Your task to perform on an android device: Search for "dell xps" on bestbuy, select the first entry, and add it to the cart. Image 0: 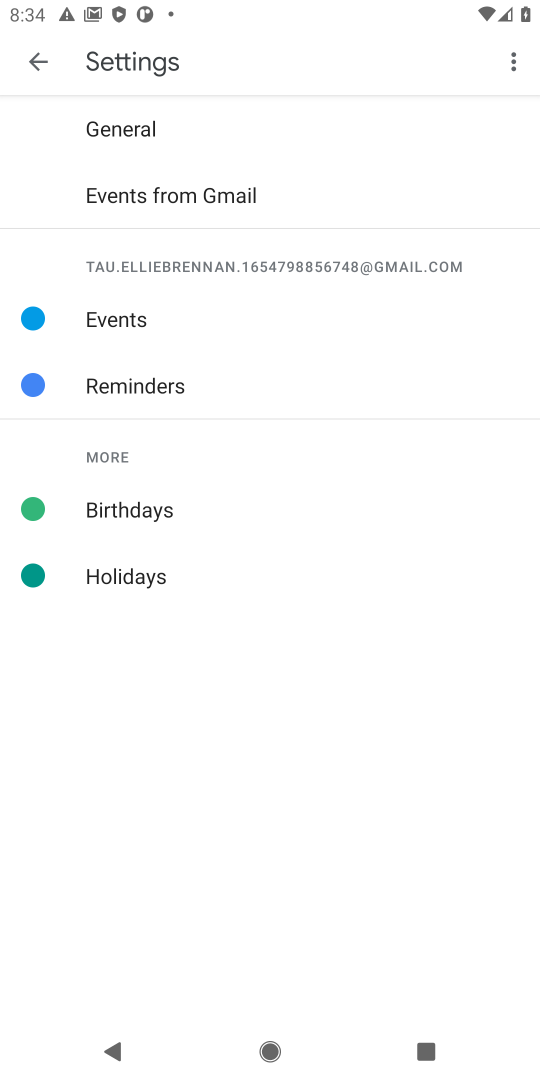
Step 0: press home button
Your task to perform on an android device: Search for "dell xps" on bestbuy, select the first entry, and add it to the cart. Image 1: 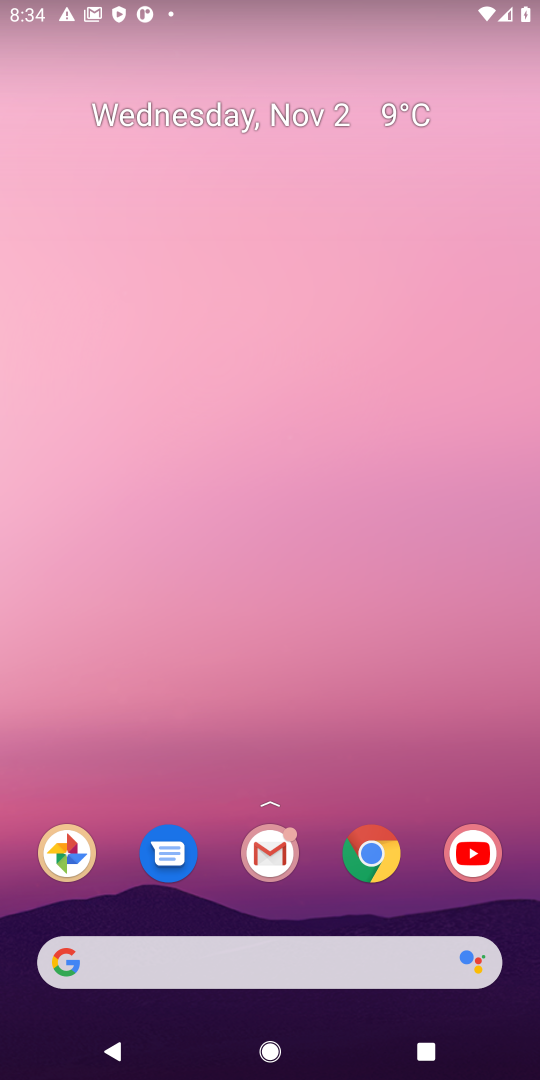
Step 1: click (364, 860)
Your task to perform on an android device: Search for "dell xps" on bestbuy, select the first entry, and add it to the cart. Image 2: 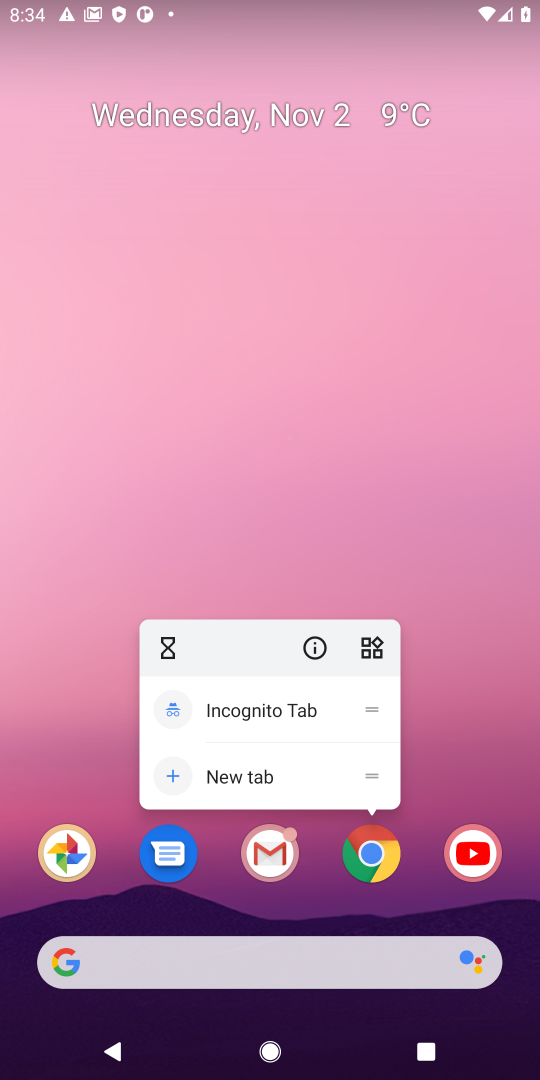
Step 2: click (367, 853)
Your task to perform on an android device: Search for "dell xps" on bestbuy, select the first entry, and add it to the cart. Image 3: 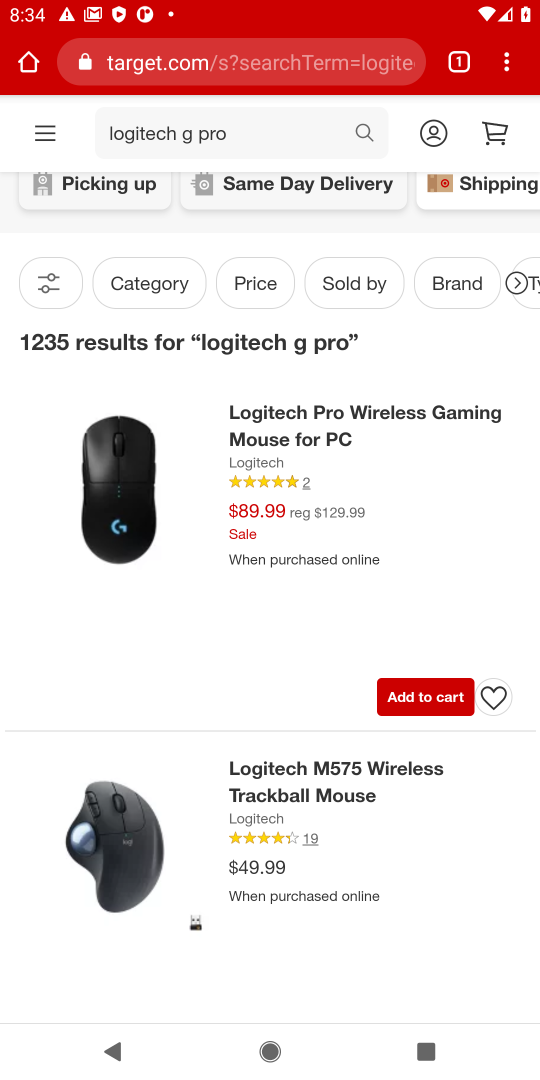
Step 3: click (242, 70)
Your task to perform on an android device: Search for "dell xps" on bestbuy, select the first entry, and add it to the cart. Image 4: 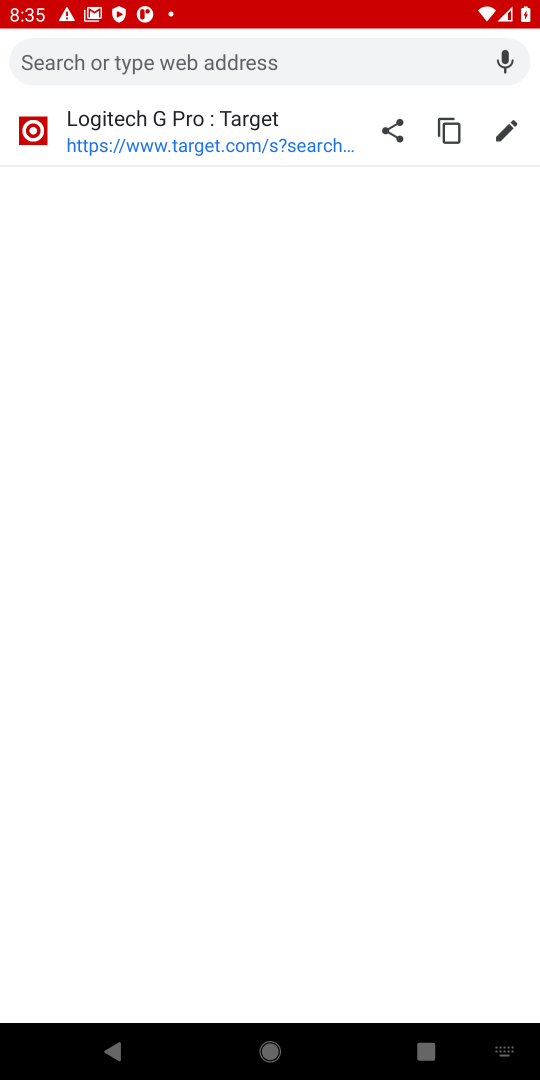
Step 4: type "bestbuy"
Your task to perform on an android device: Search for "dell xps" on bestbuy, select the first entry, and add it to the cart. Image 5: 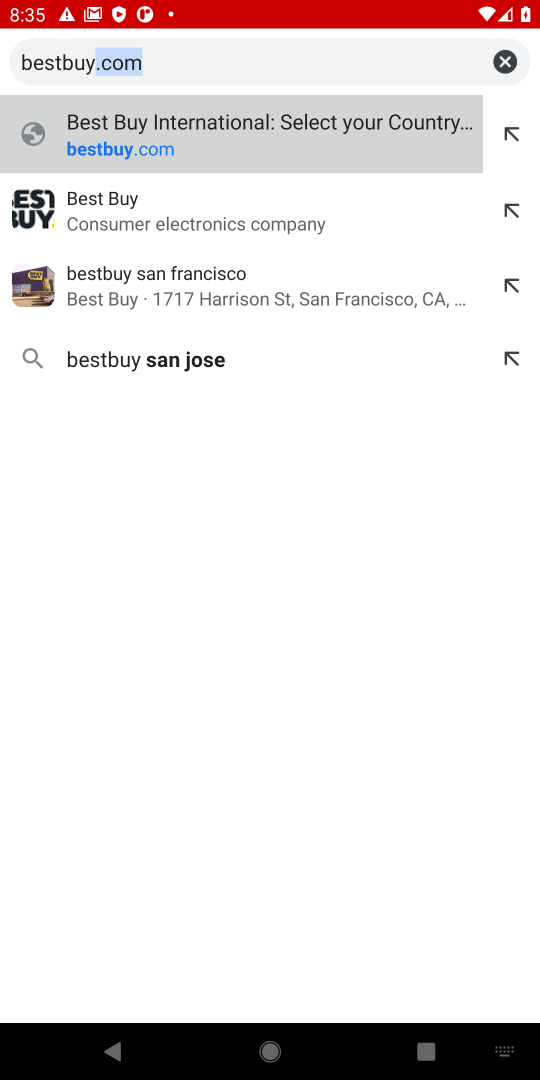
Step 5: press enter
Your task to perform on an android device: Search for "dell xps" on bestbuy, select the first entry, and add it to the cart. Image 6: 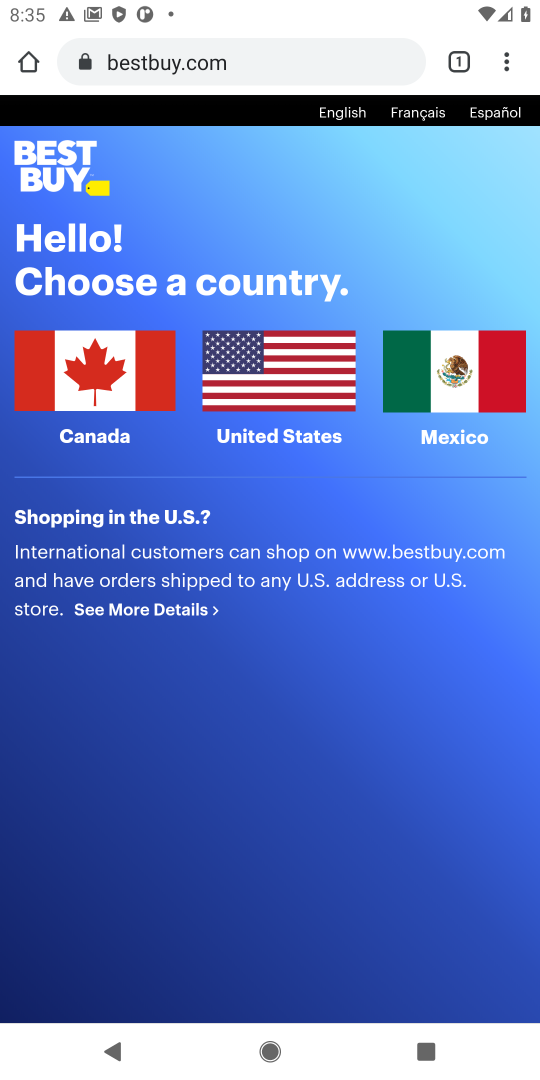
Step 6: click (101, 409)
Your task to perform on an android device: Search for "dell xps" on bestbuy, select the first entry, and add it to the cart. Image 7: 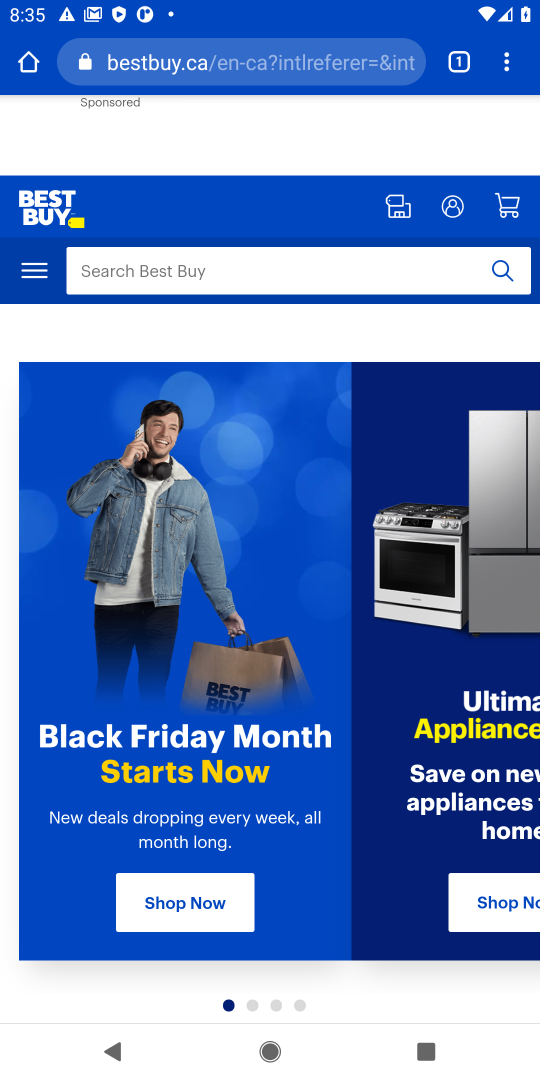
Step 7: click (246, 265)
Your task to perform on an android device: Search for "dell xps" on bestbuy, select the first entry, and add it to the cart. Image 8: 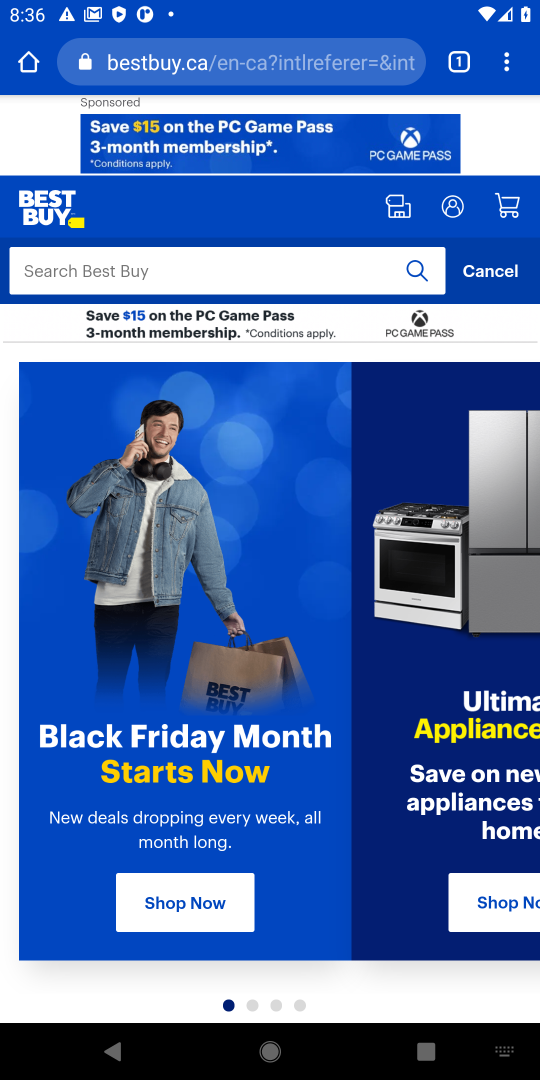
Step 8: type "dell xps"
Your task to perform on an android device: Search for "dell xps" on bestbuy, select the first entry, and add it to the cart. Image 9: 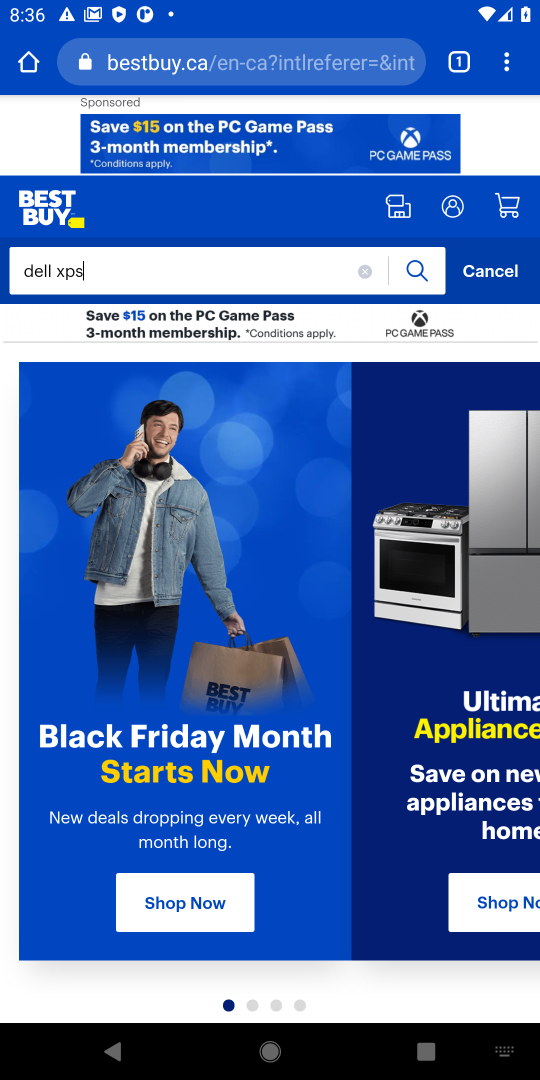
Step 9: press enter
Your task to perform on an android device: Search for "dell xps" on bestbuy, select the first entry, and add it to the cart. Image 10: 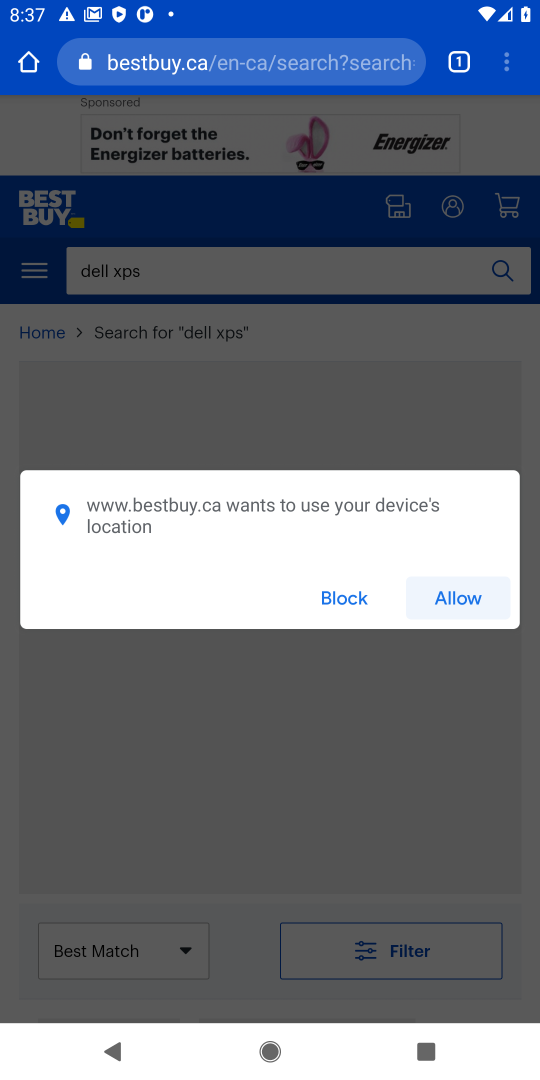
Step 10: click (331, 590)
Your task to perform on an android device: Search for "dell xps" on bestbuy, select the first entry, and add it to the cart. Image 11: 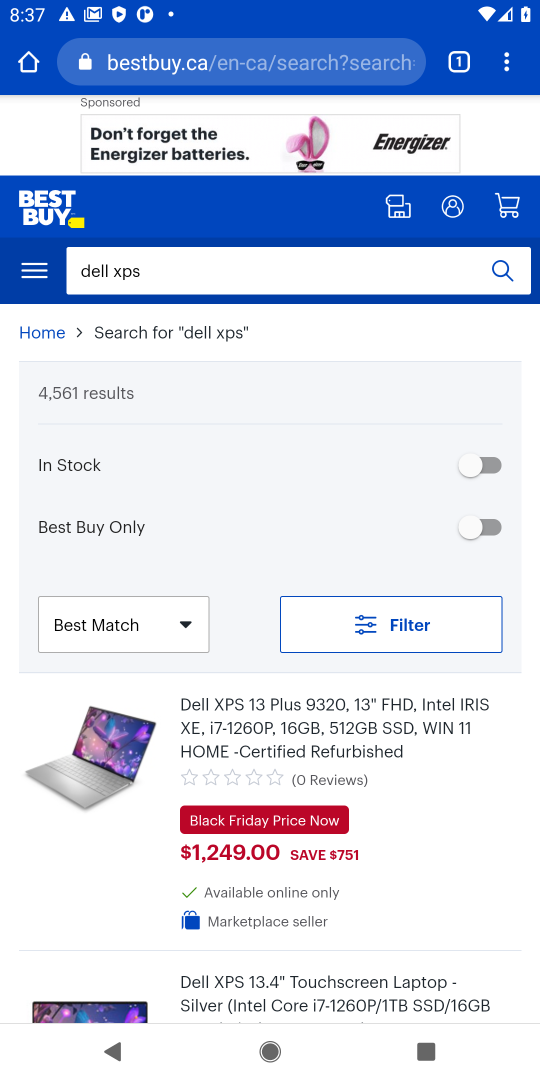
Step 11: click (328, 719)
Your task to perform on an android device: Search for "dell xps" on bestbuy, select the first entry, and add it to the cart. Image 12: 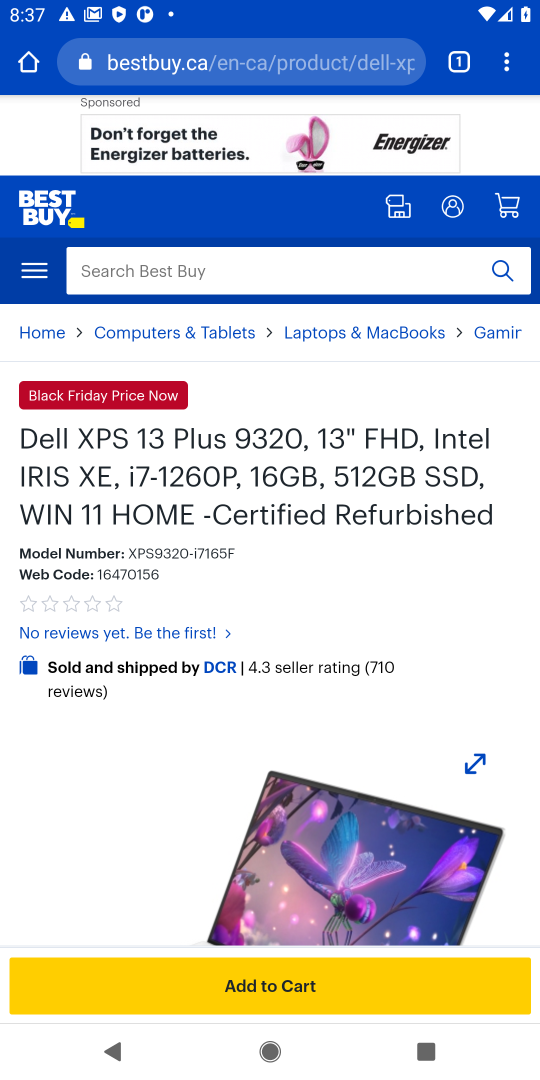
Step 12: drag from (160, 863) to (402, 301)
Your task to perform on an android device: Search for "dell xps" on bestbuy, select the first entry, and add it to the cart. Image 13: 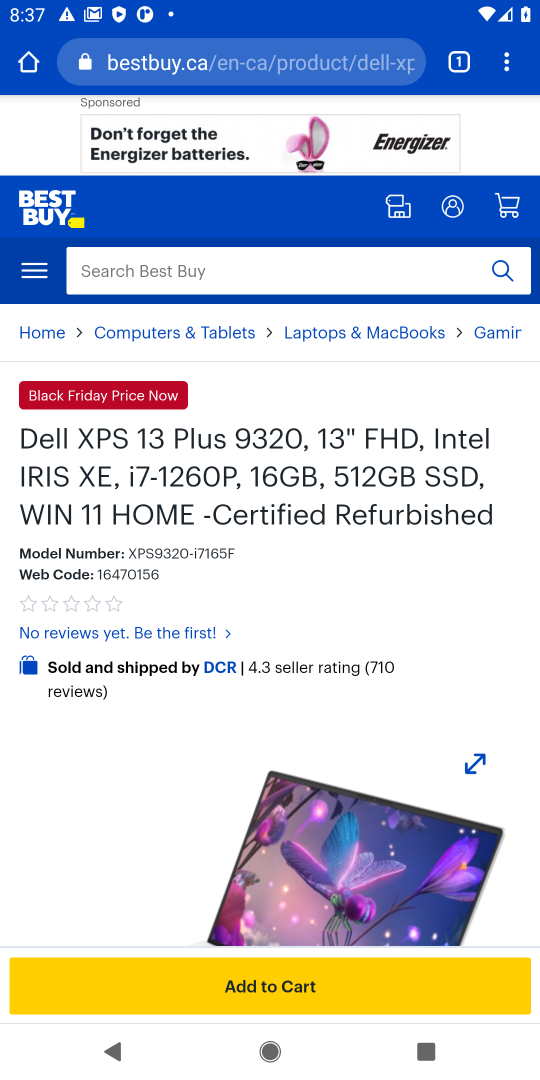
Step 13: click (272, 976)
Your task to perform on an android device: Search for "dell xps" on bestbuy, select the first entry, and add it to the cart. Image 14: 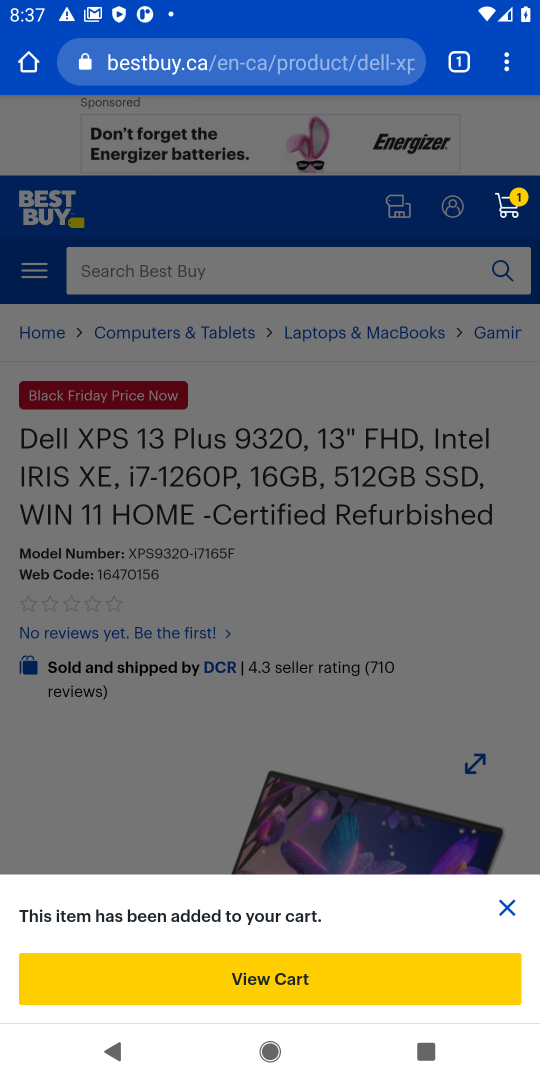
Step 14: click (302, 983)
Your task to perform on an android device: Search for "dell xps" on bestbuy, select the first entry, and add it to the cart. Image 15: 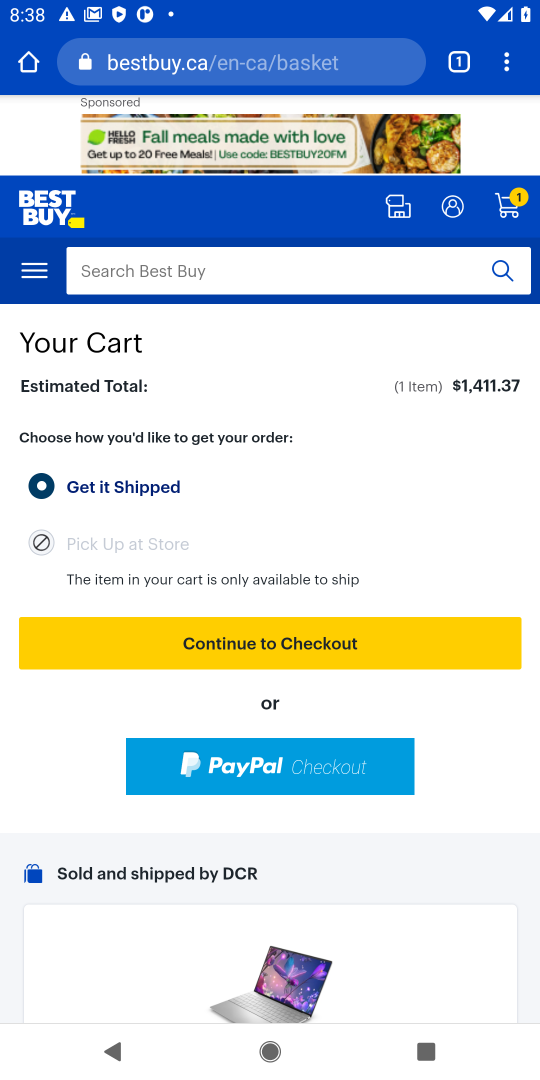
Step 15: click (514, 202)
Your task to perform on an android device: Search for "dell xps" on bestbuy, select the first entry, and add it to the cart. Image 16: 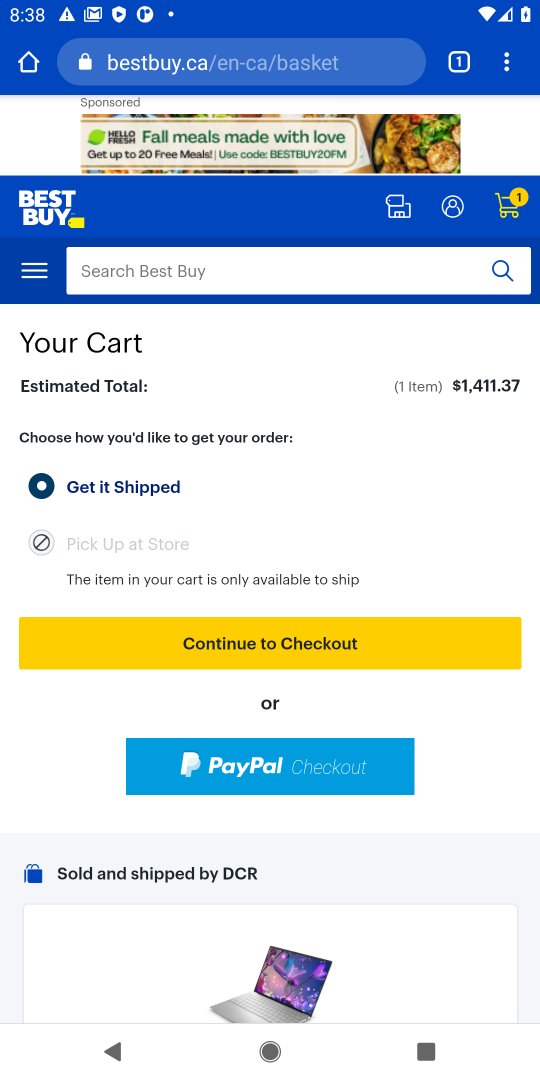
Step 16: click (515, 198)
Your task to perform on an android device: Search for "dell xps" on bestbuy, select the first entry, and add it to the cart. Image 17: 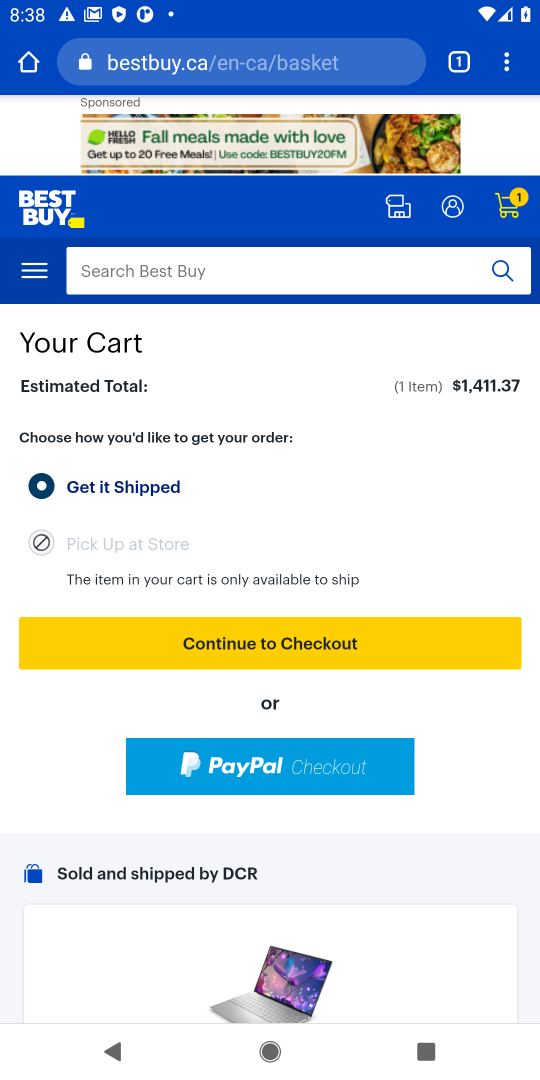
Step 17: click (515, 217)
Your task to perform on an android device: Search for "dell xps" on bestbuy, select the first entry, and add it to the cart. Image 18: 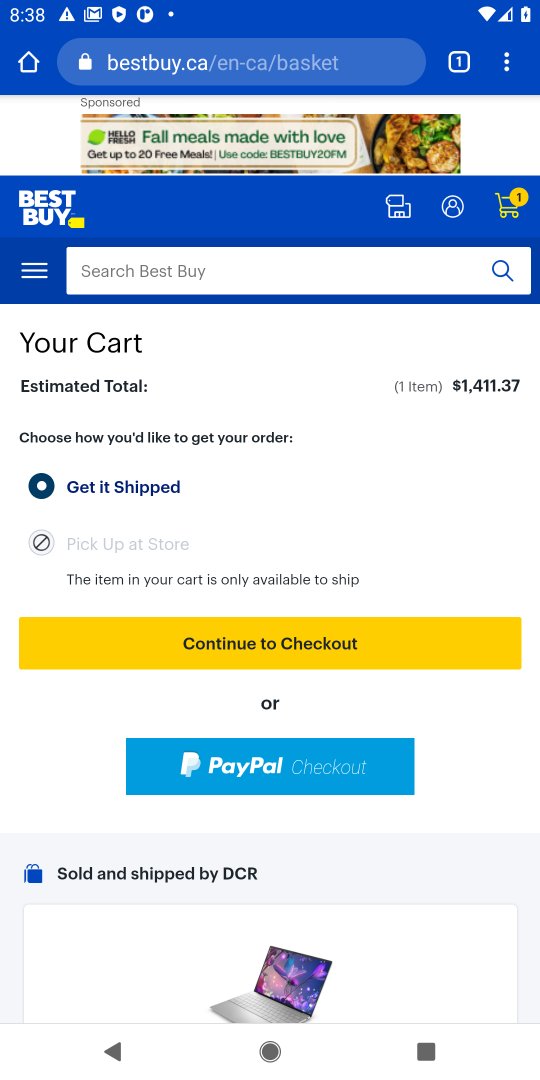
Step 18: click (510, 203)
Your task to perform on an android device: Search for "dell xps" on bestbuy, select the first entry, and add it to the cart. Image 19: 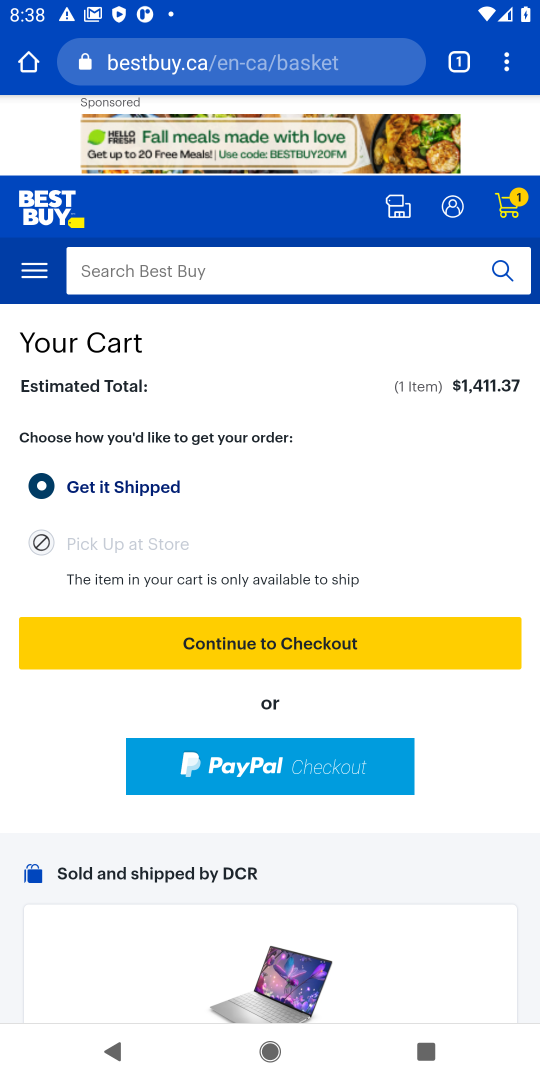
Step 19: click (504, 215)
Your task to perform on an android device: Search for "dell xps" on bestbuy, select the first entry, and add it to the cart. Image 20: 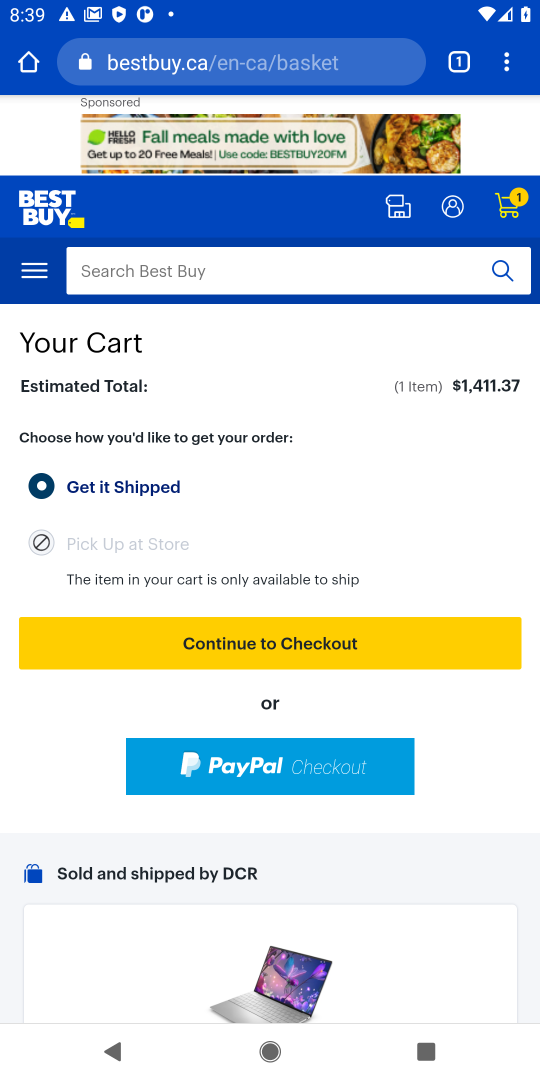
Step 20: task complete